Your task to perform on an android device: turn pop-ups on in chrome Image 0: 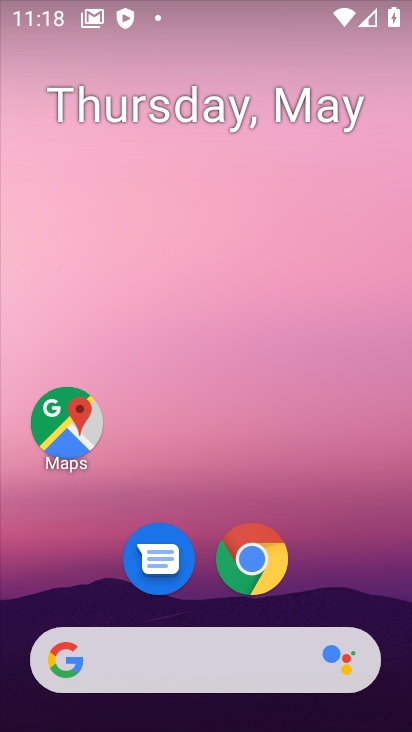
Step 0: click (252, 561)
Your task to perform on an android device: turn pop-ups on in chrome Image 1: 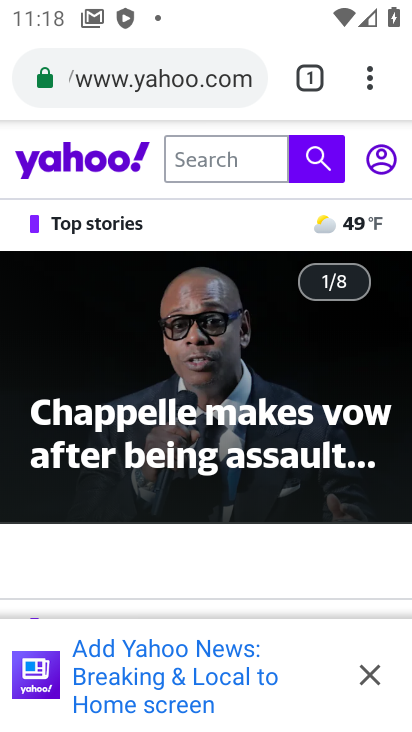
Step 1: drag from (367, 74) to (163, 590)
Your task to perform on an android device: turn pop-ups on in chrome Image 2: 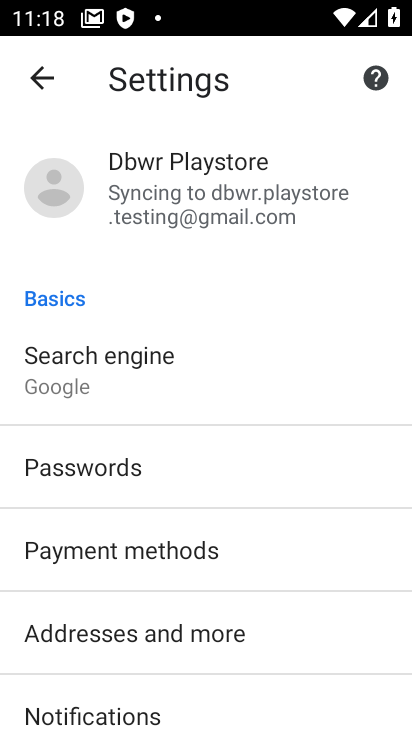
Step 2: drag from (177, 700) to (182, 341)
Your task to perform on an android device: turn pop-ups on in chrome Image 3: 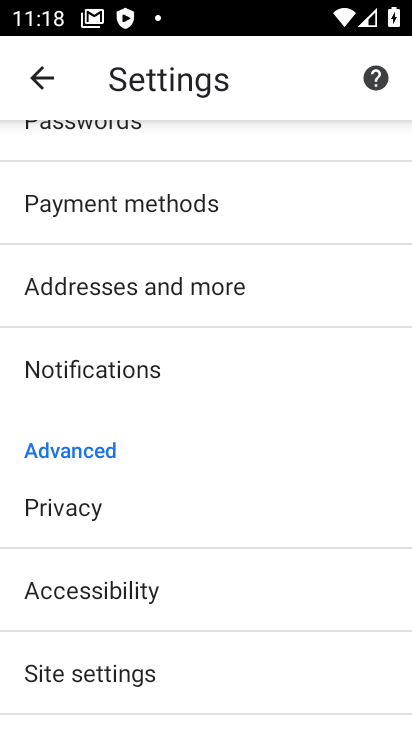
Step 3: drag from (184, 637) to (181, 494)
Your task to perform on an android device: turn pop-ups on in chrome Image 4: 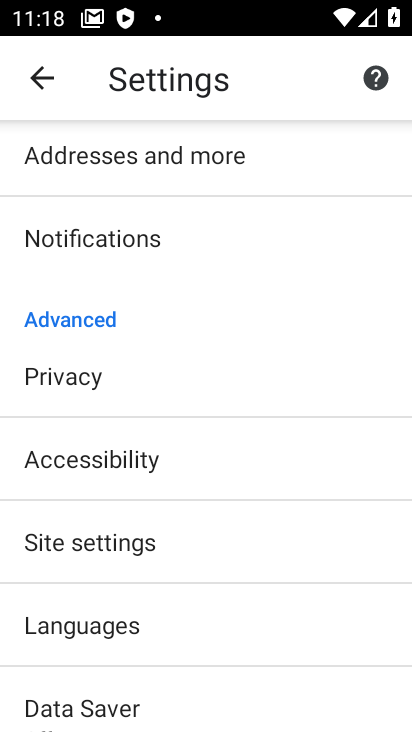
Step 4: click (115, 542)
Your task to perform on an android device: turn pop-ups on in chrome Image 5: 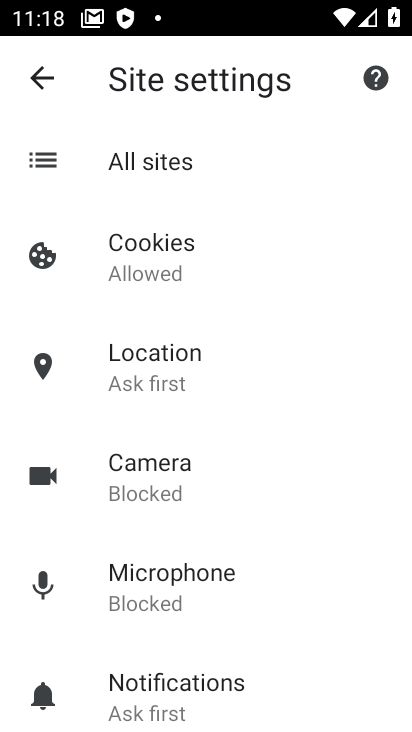
Step 5: drag from (196, 676) to (204, 351)
Your task to perform on an android device: turn pop-ups on in chrome Image 6: 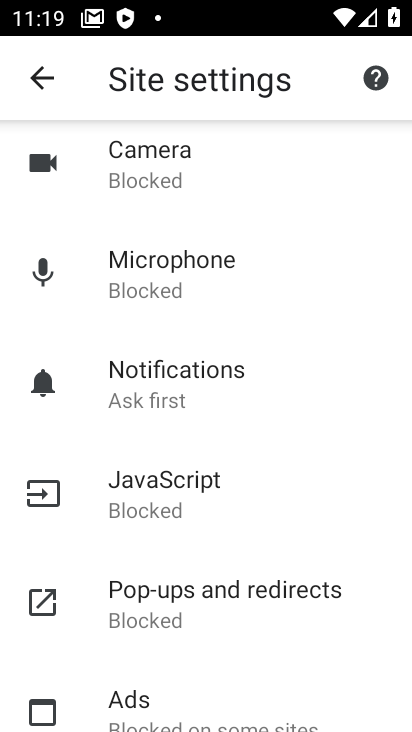
Step 6: click (176, 592)
Your task to perform on an android device: turn pop-ups on in chrome Image 7: 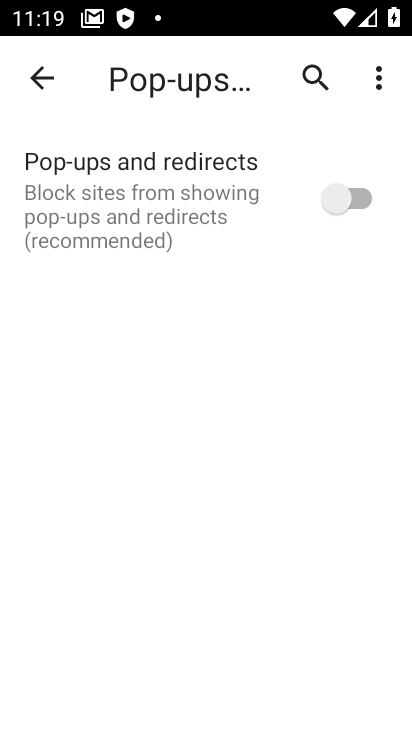
Step 7: click (358, 201)
Your task to perform on an android device: turn pop-ups on in chrome Image 8: 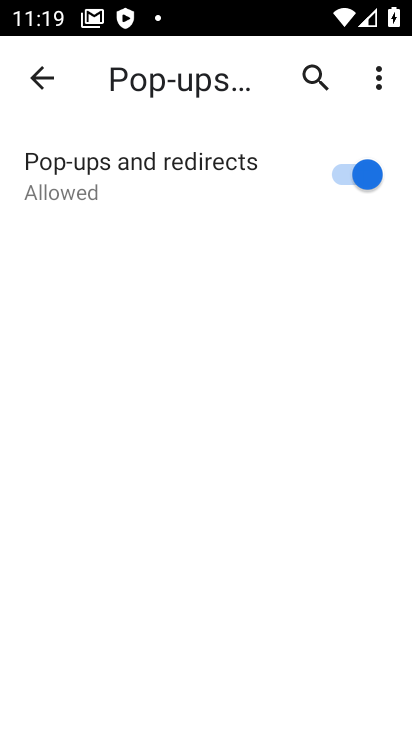
Step 8: task complete